Your task to perform on an android device: toggle wifi Image 0: 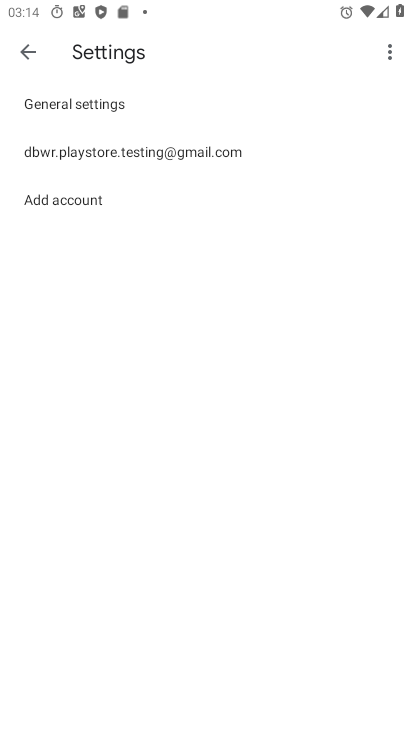
Step 0: press home button
Your task to perform on an android device: toggle wifi Image 1: 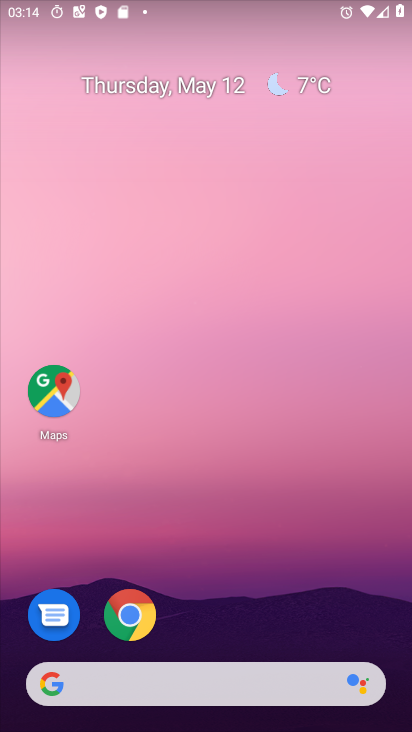
Step 1: drag from (211, 669) to (185, 51)
Your task to perform on an android device: toggle wifi Image 2: 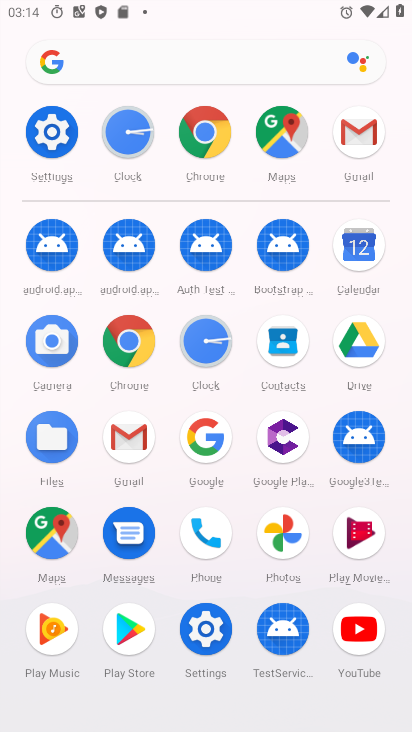
Step 2: click (65, 141)
Your task to perform on an android device: toggle wifi Image 3: 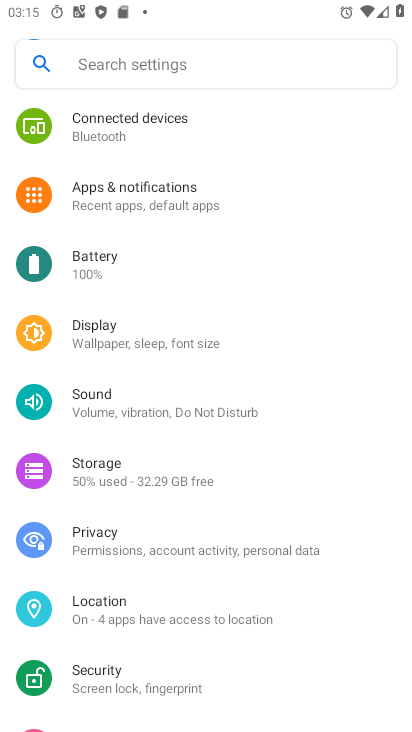
Step 3: drag from (137, 136) to (176, 615)
Your task to perform on an android device: toggle wifi Image 4: 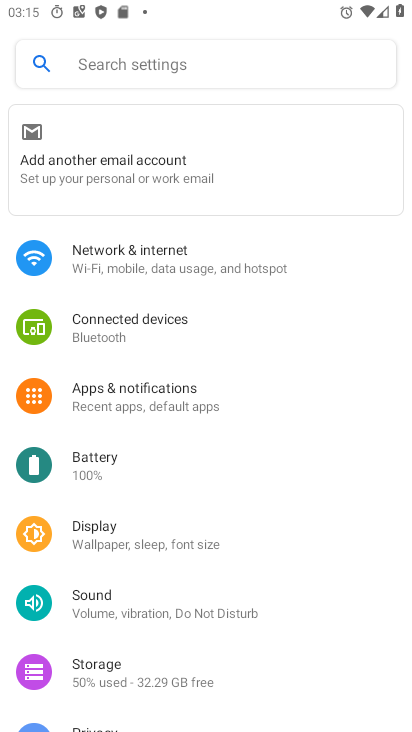
Step 4: click (135, 259)
Your task to perform on an android device: toggle wifi Image 5: 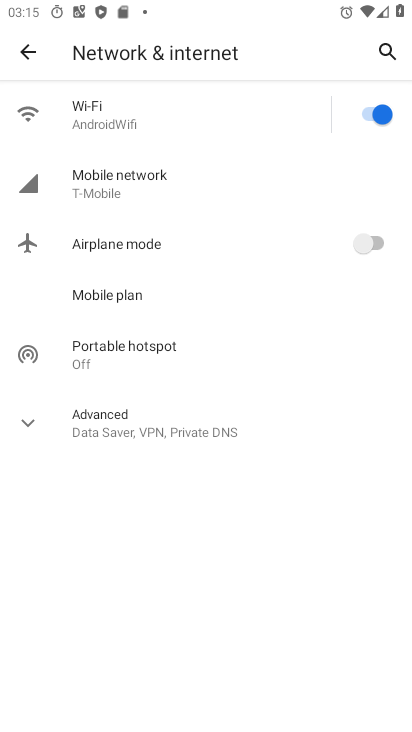
Step 5: click (363, 113)
Your task to perform on an android device: toggle wifi Image 6: 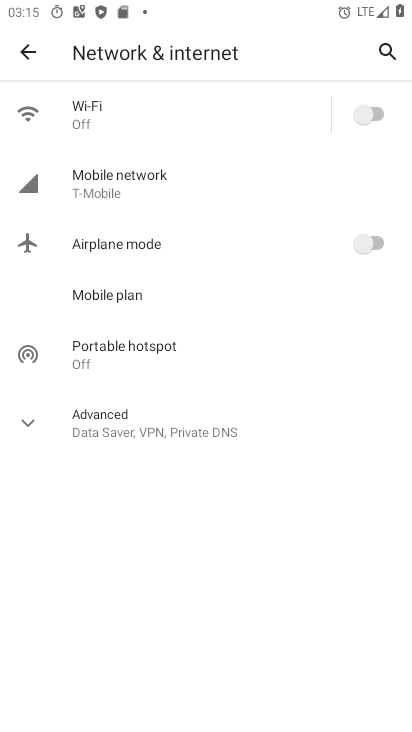
Step 6: task complete